Your task to perform on an android device: Clear all items from cart on walmart.com. Add usb-b to the cart on walmart.com, then select checkout. Image 0: 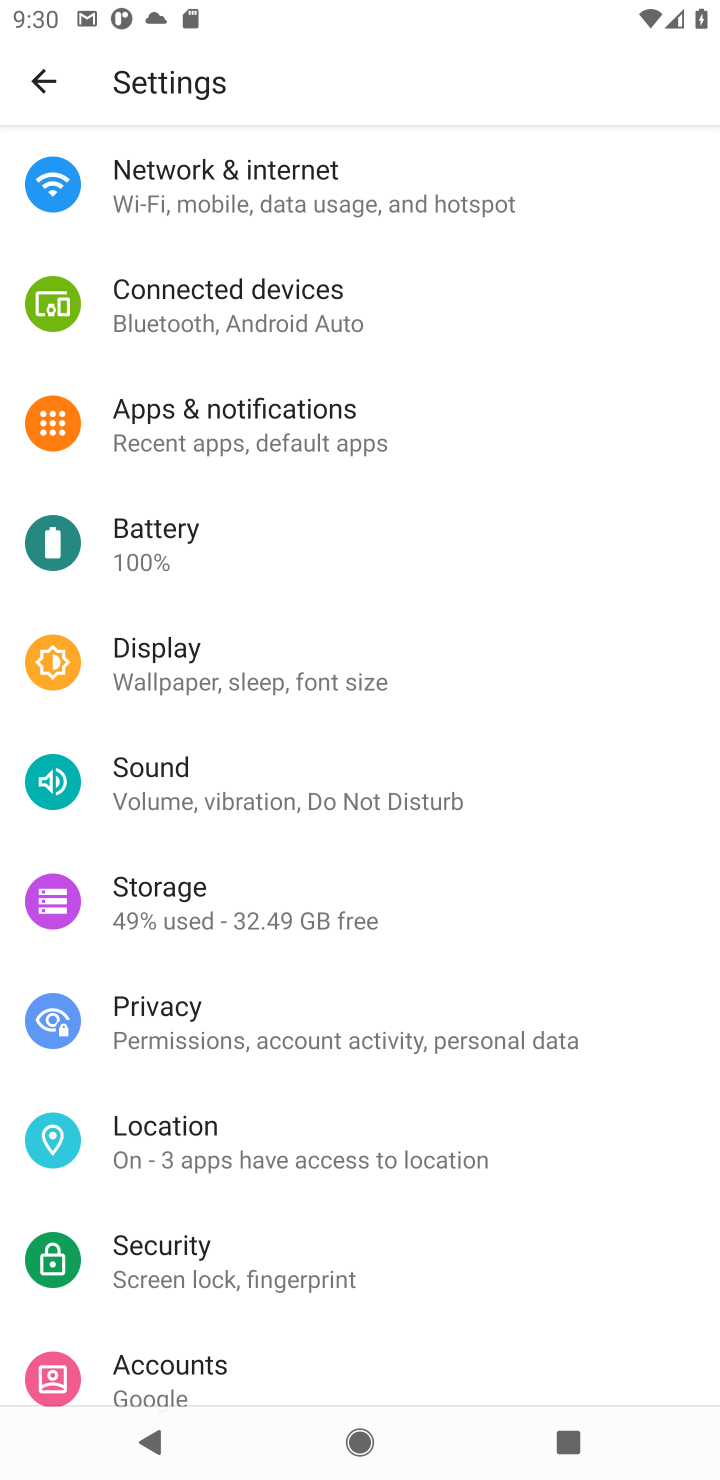
Step 0: press home button
Your task to perform on an android device: Clear all items from cart on walmart.com. Add usb-b to the cart on walmart.com, then select checkout. Image 1: 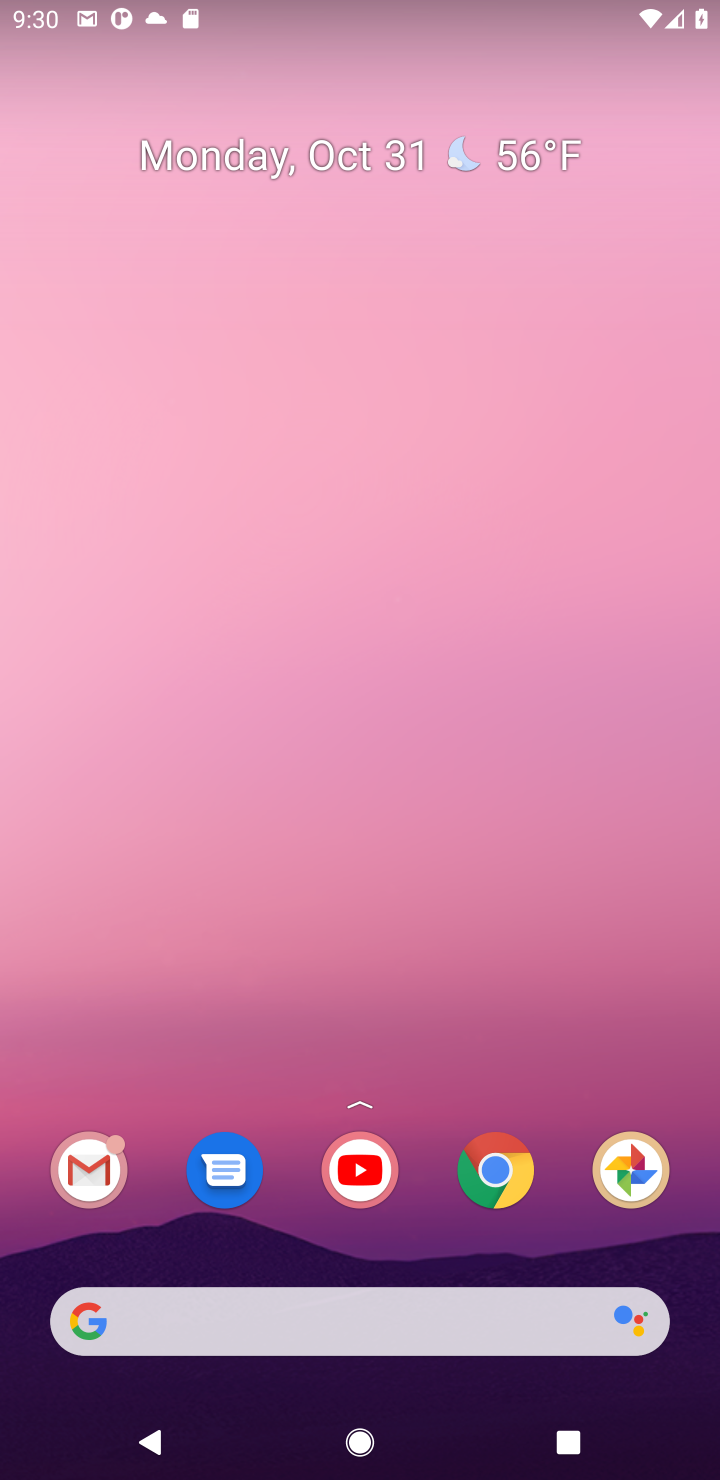
Step 1: click (505, 1165)
Your task to perform on an android device: Clear all items from cart on walmart.com. Add usb-b to the cart on walmart.com, then select checkout. Image 2: 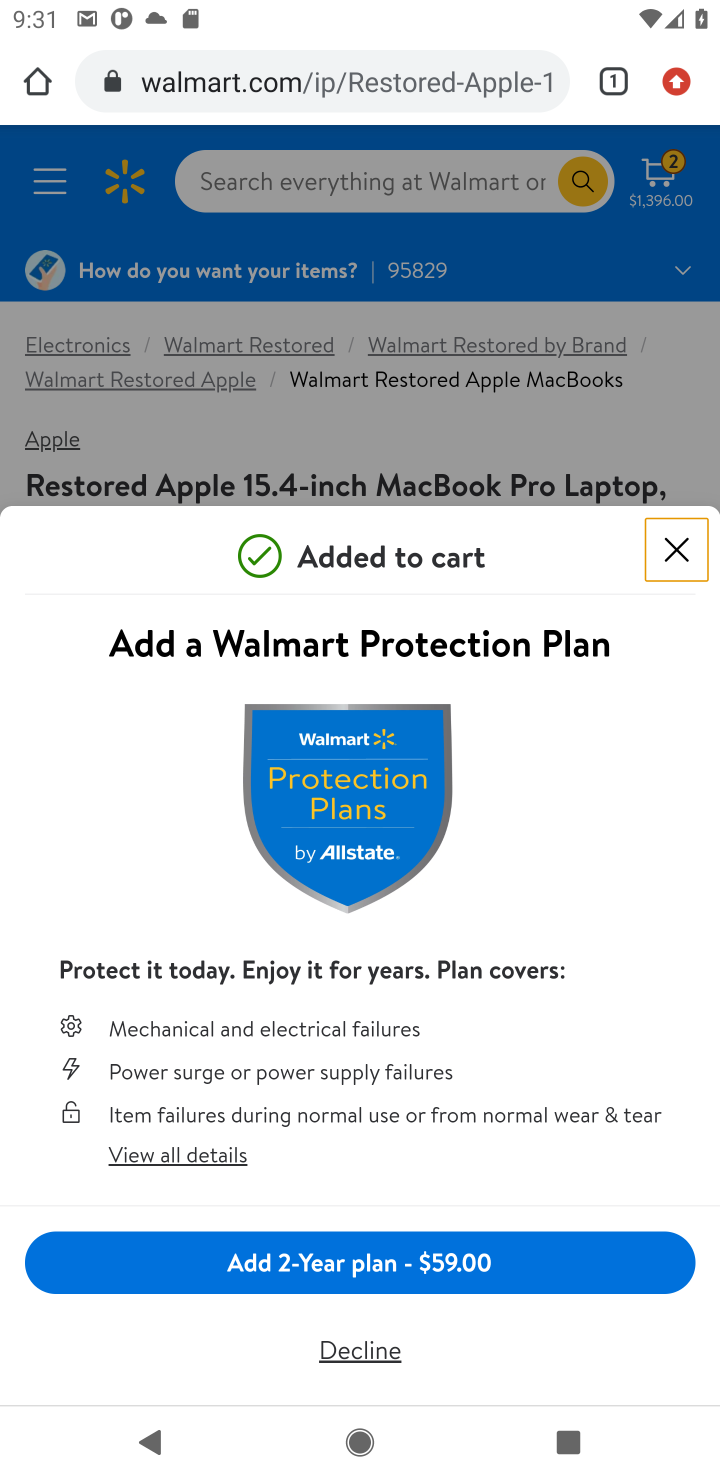
Step 2: click (691, 543)
Your task to perform on an android device: Clear all items from cart on walmart.com. Add usb-b to the cart on walmart.com, then select checkout. Image 3: 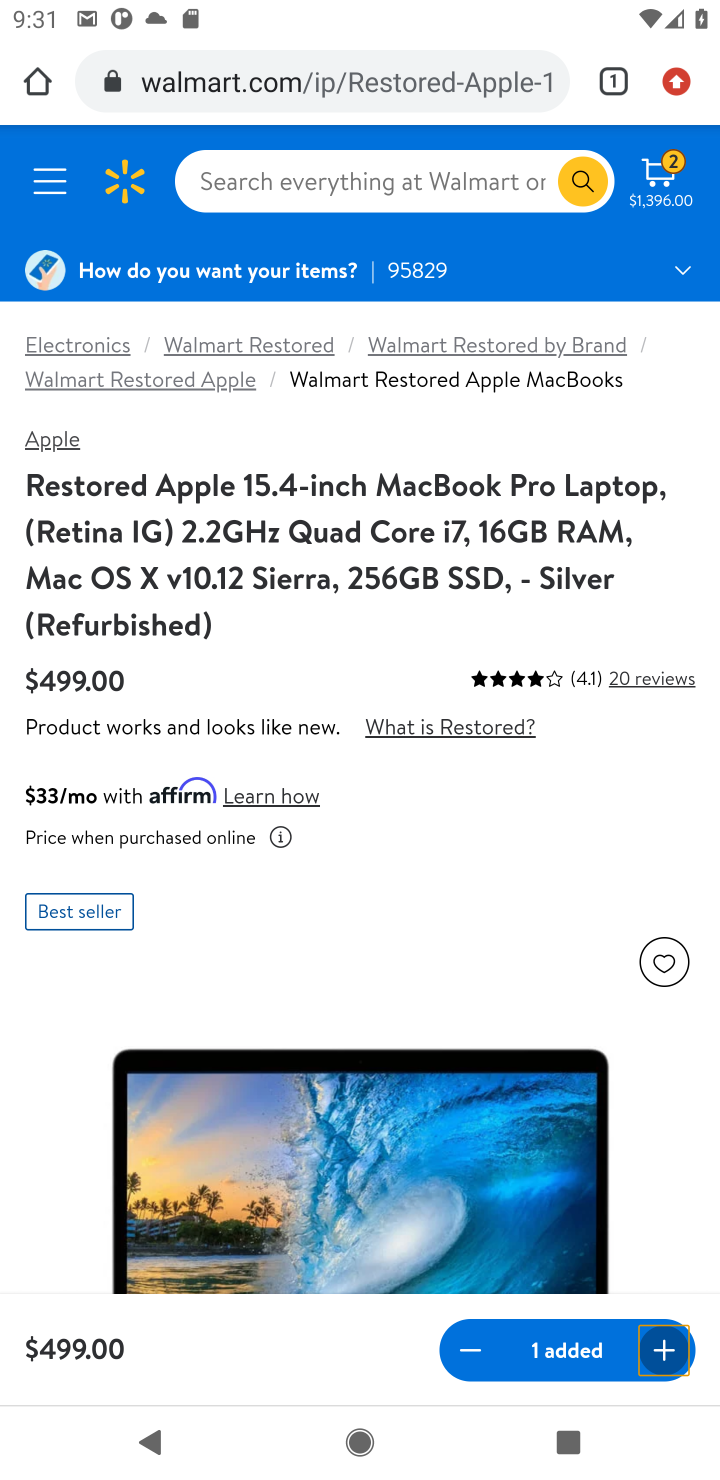
Step 3: click (653, 173)
Your task to perform on an android device: Clear all items from cart on walmart.com. Add usb-b to the cart on walmart.com, then select checkout. Image 4: 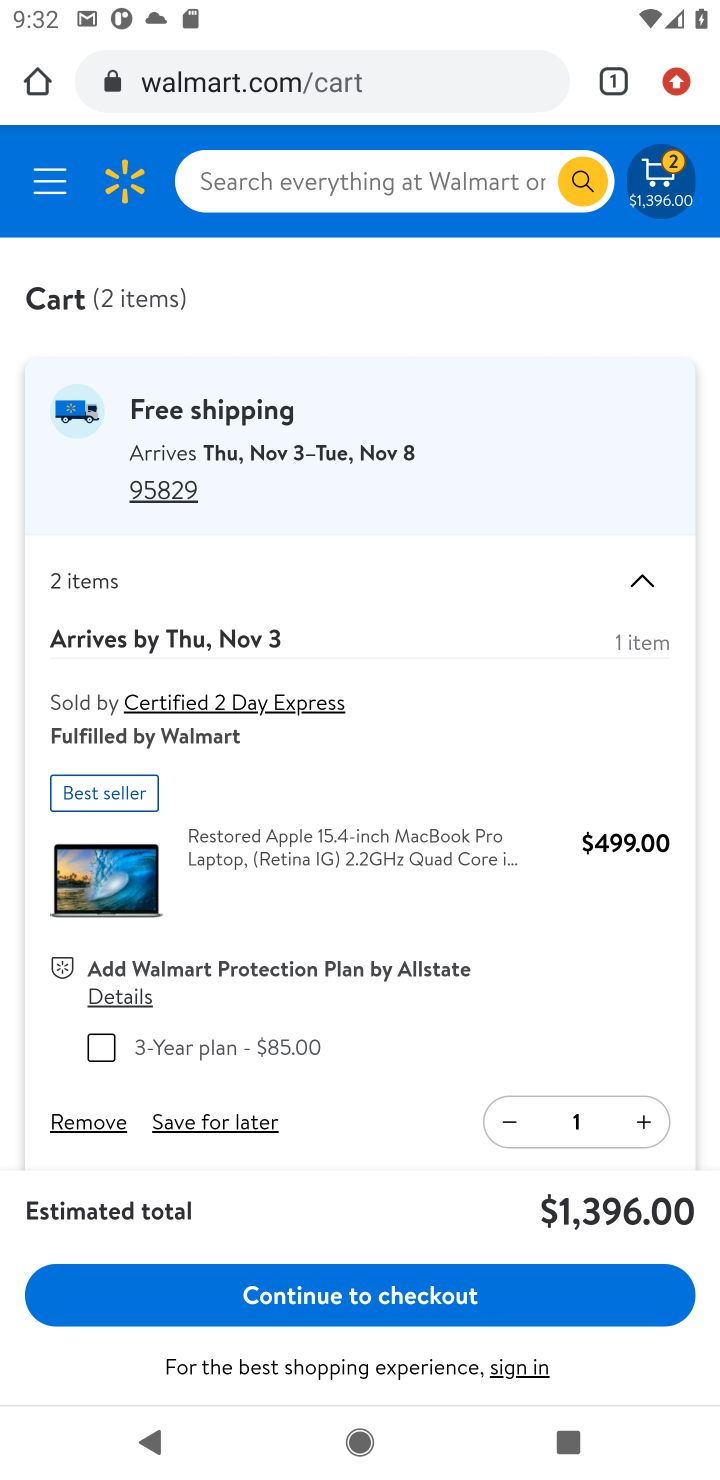
Step 4: click (503, 1113)
Your task to perform on an android device: Clear all items from cart on walmart.com. Add usb-b to the cart on walmart.com, then select checkout. Image 5: 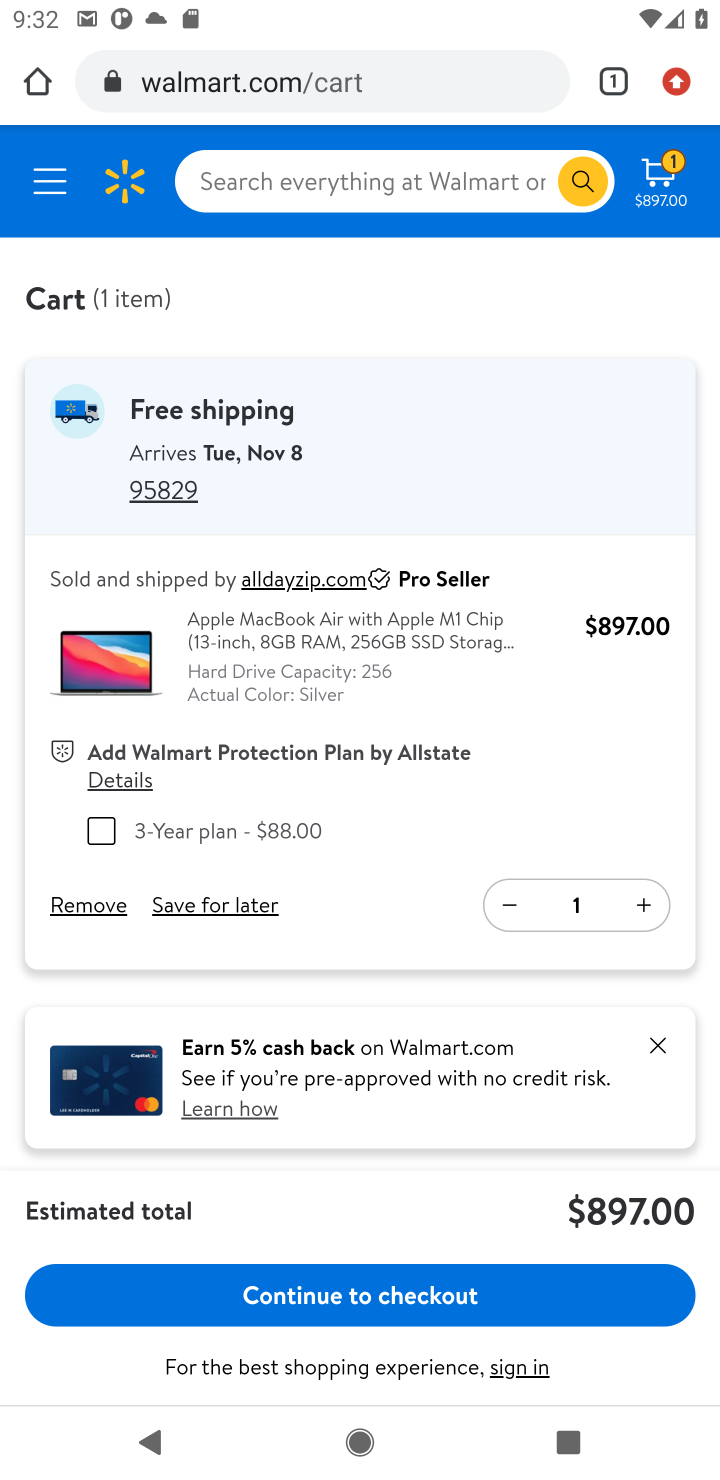
Step 5: click (97, 914)
Your task to perform on an android device: Clear all items from cart on walmart.com. Add usb-b to the cart on walmart.com, then select checkout. Image 6: 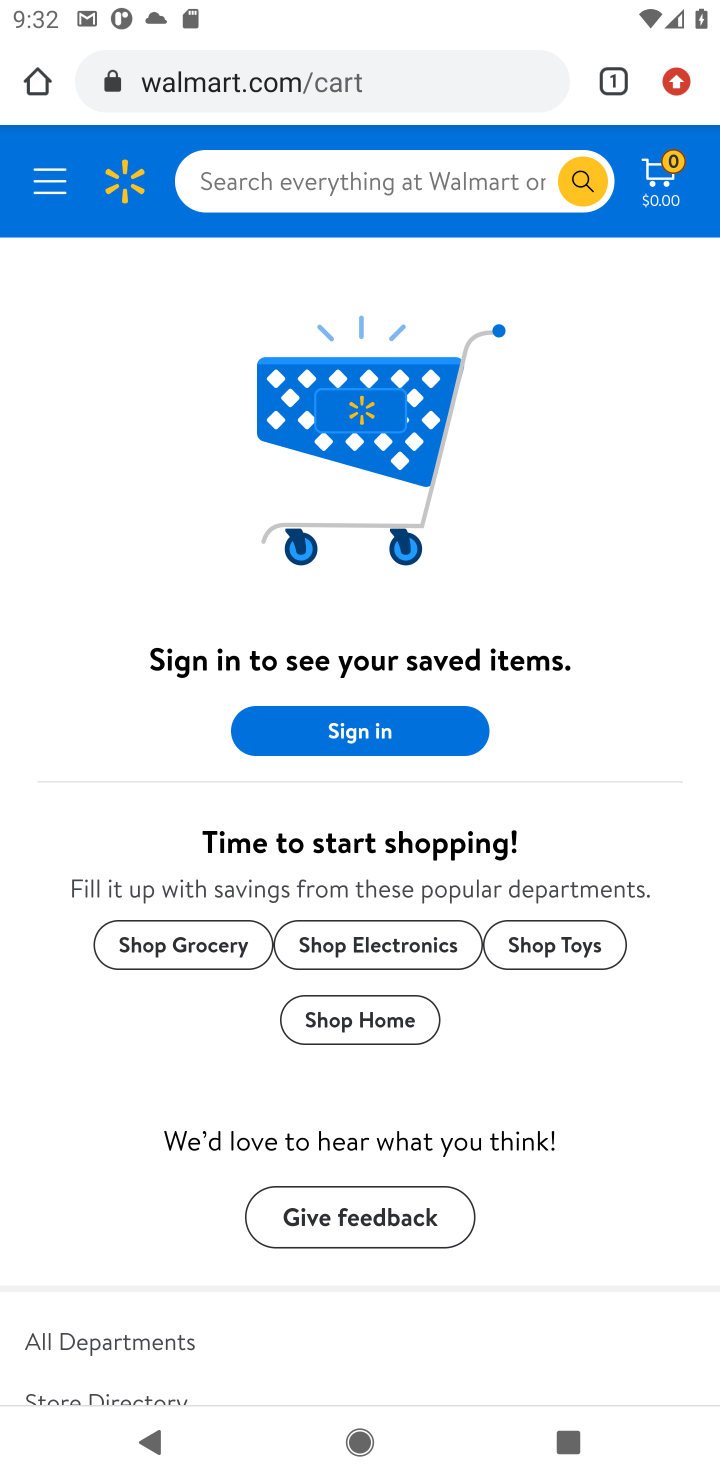
Step 6: click (225, 183)
Your task to perform on an android device: Clear all items from cart on walmart.com. Add usb-b to the cart on walmart.com, then select checkout. Image 7: 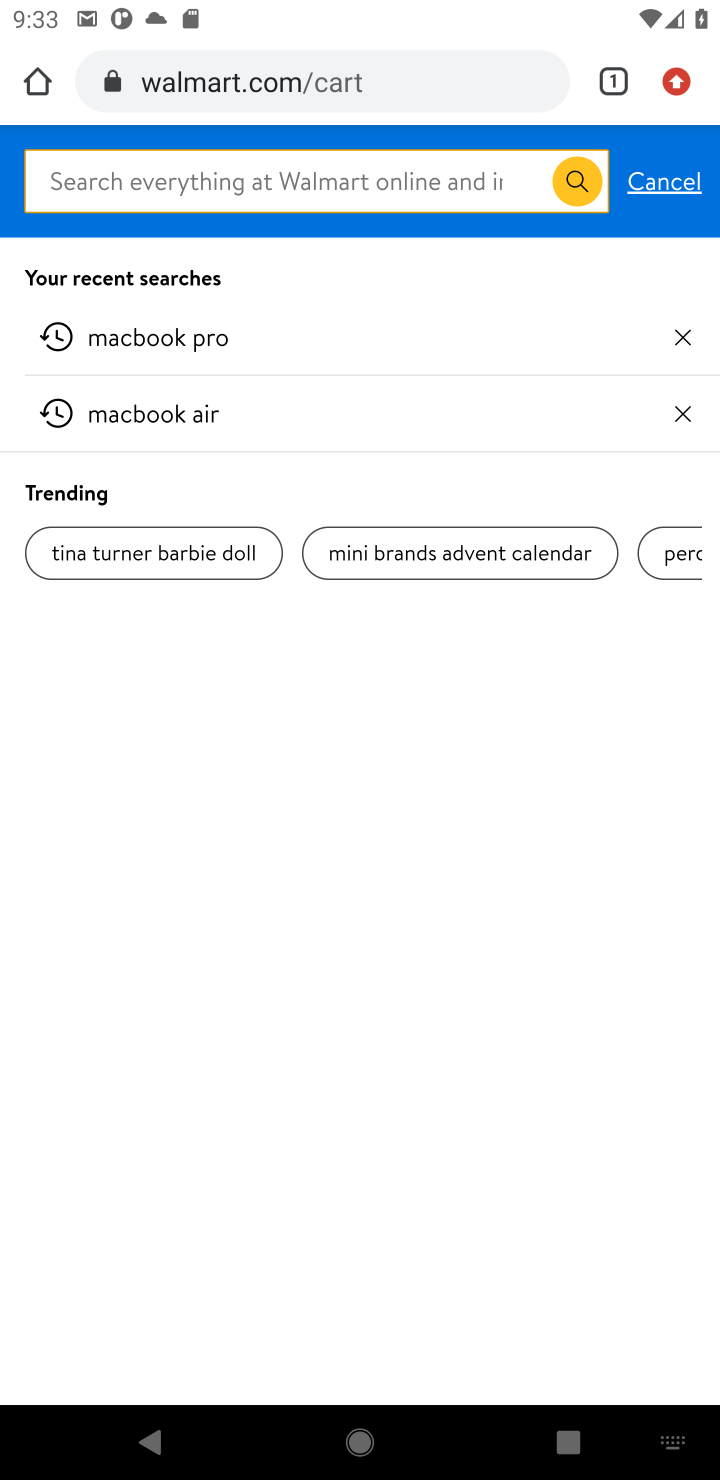
Step 7: type "usb-b"
Your task to perform on an android device: Clear all items from cart on walmart.com. Add usb-b to the cart on walmart.com, then select checkout. Image 8: 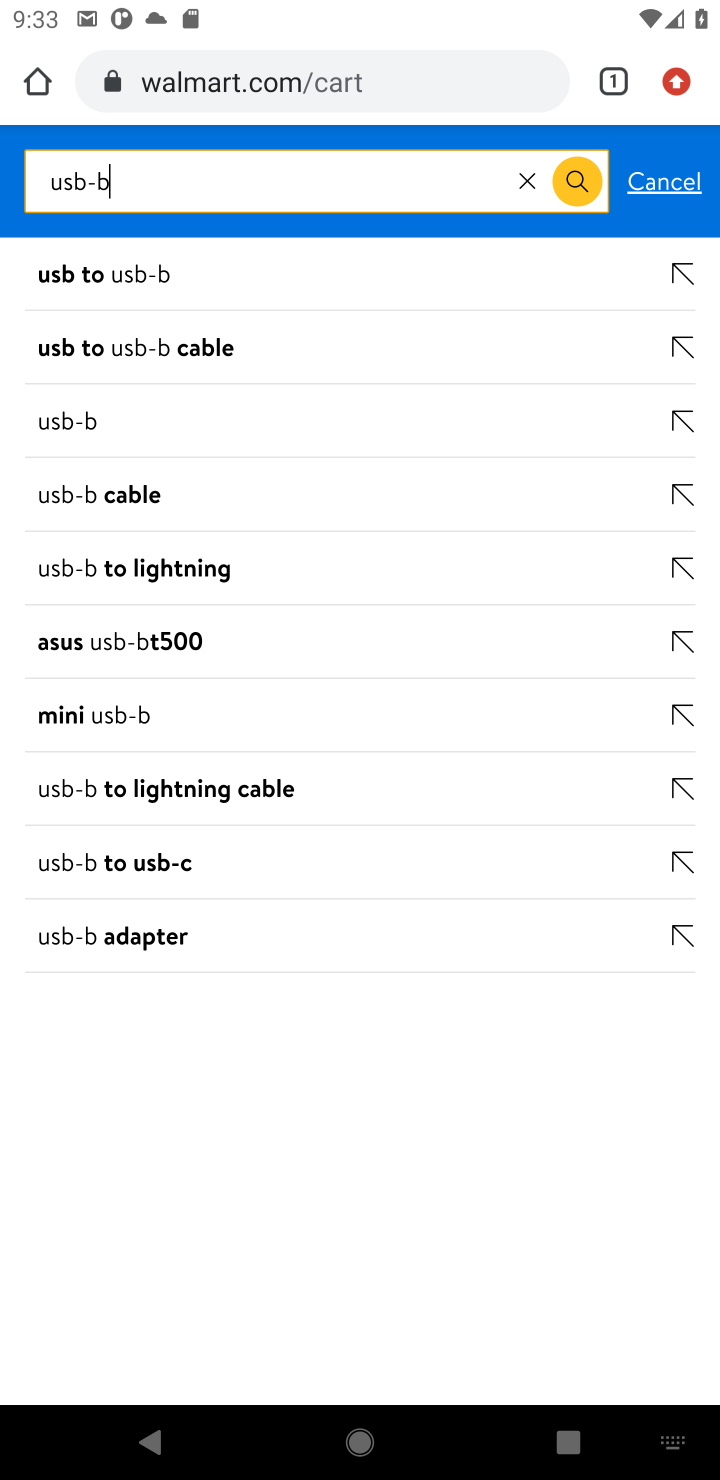
Step 8: click (565, 171)
Your task to perform on an android device: Clear all items from cart on walmart.com. Add usb-b to the cart on walmart.com, then select checkout. Image 9: 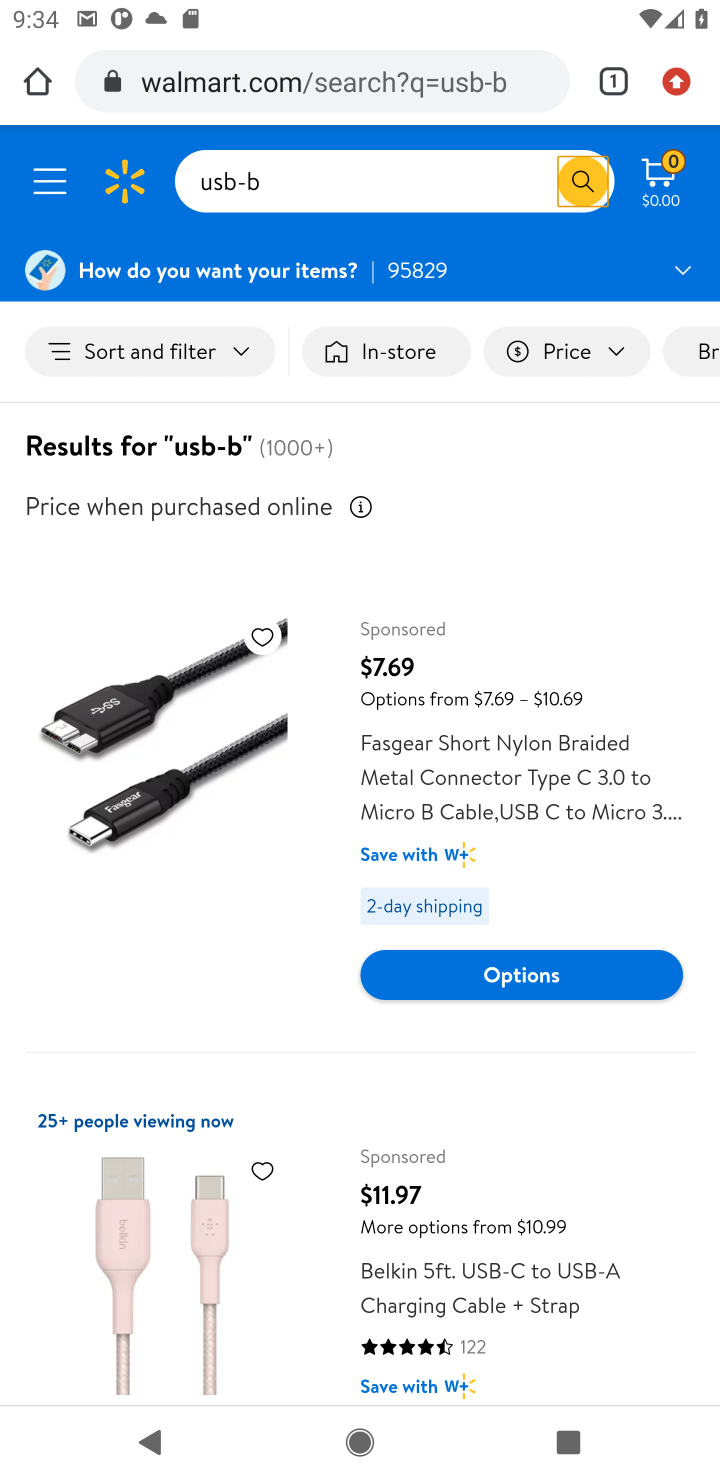
Step 9: task complete